Your task to perform on an android device: empty trash in google photos Image 0: 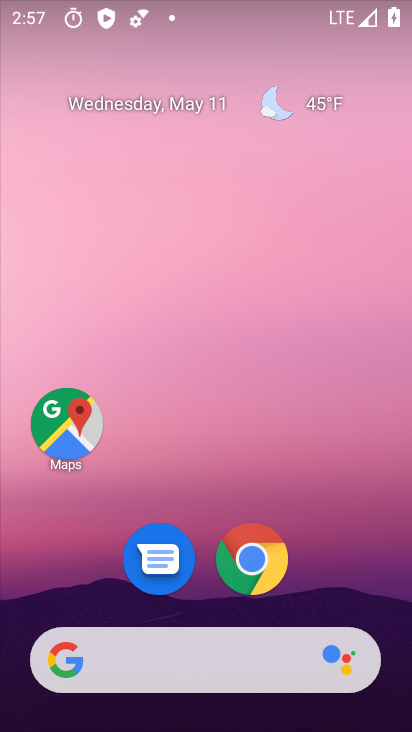
Step 0: drag from (329, 527) to (228, 139)
Your task to perform on an android device: empty trash in google photos Image 1: 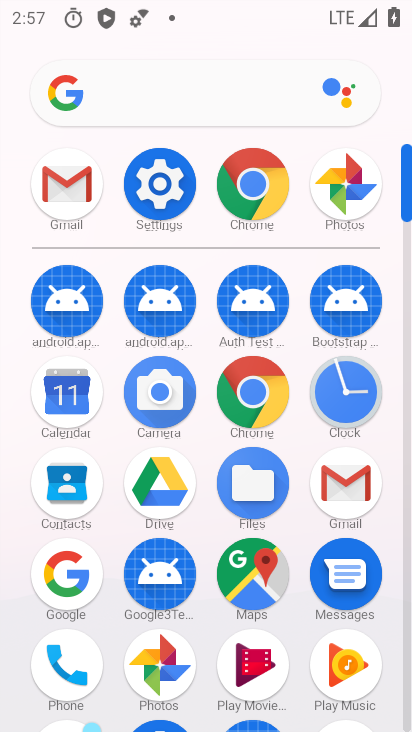
Step 1: click (166, 664)
Your task to perform on an android device: empty trash in google photos Image 2: 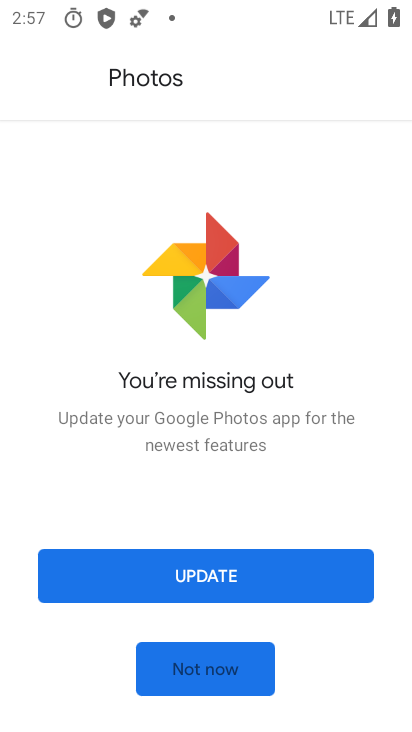
Step 2: click (236, 578)
Your task to perform on an android device: empty trash in google photos Image 3: 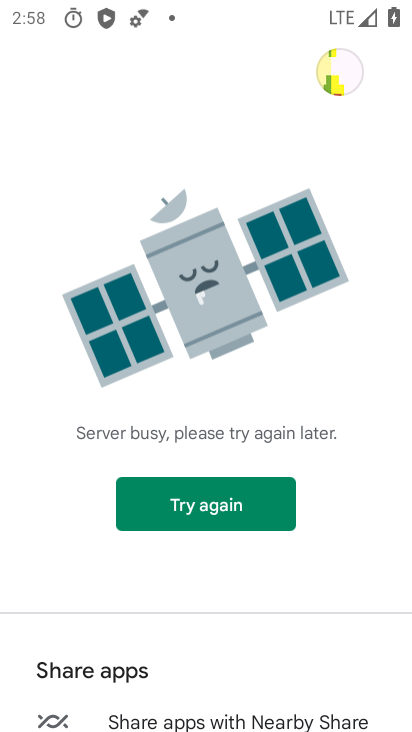
Step 3: task complete